Your task to perform on an android device: check storage Image 0: 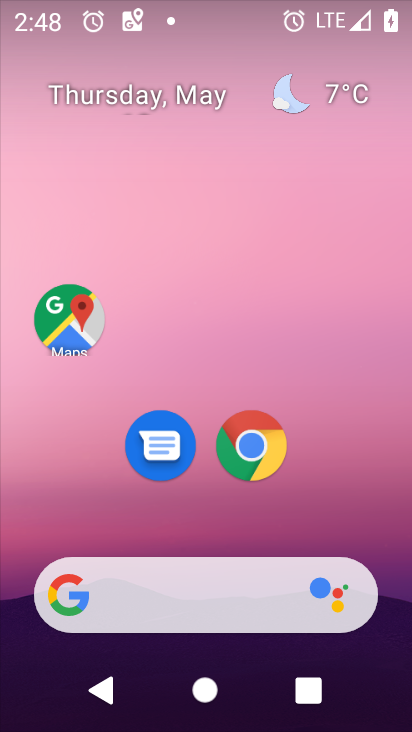
Step 0: drag from (361, 548) to (350, 32)
Your task to perform on an android device: check storage Image 1: 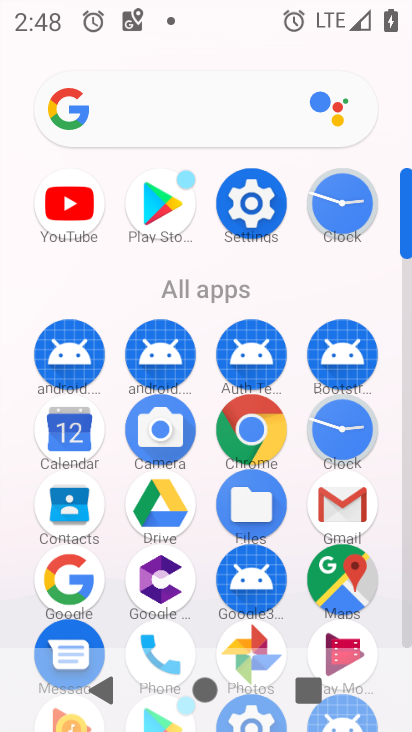
Step 1: click (243, 209)
Your task to perform on an android device: check storage Image 2: 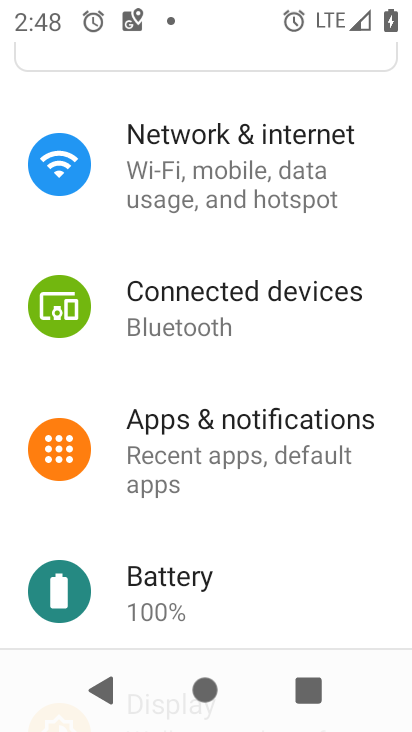
Step 2: drag from (304, 596) to (272, 170)
Your task to perform on an android device: check storage Image 3: 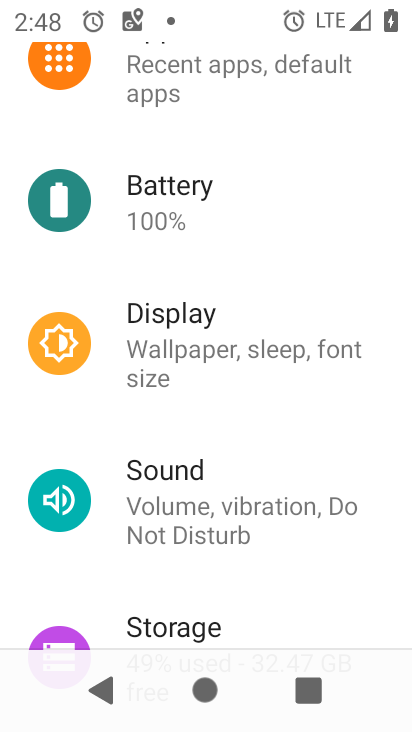
Step 3: drag from (220, 515) to (225, 248)
Your task to perform on an android device: check storage Image 4: 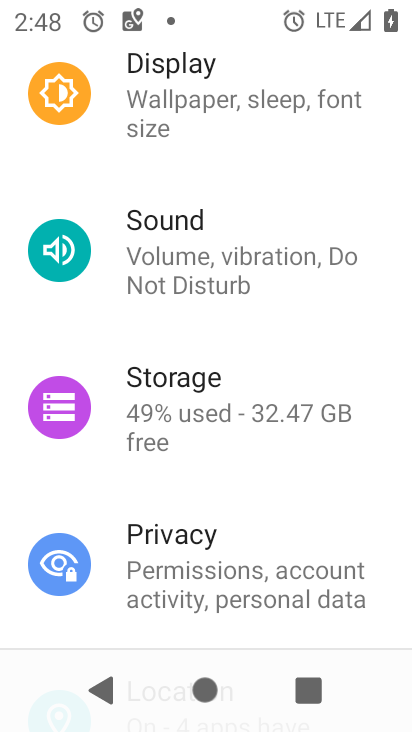
Step 4: click (176, 410)
Your task to perform on an android device: check storage Image 5: 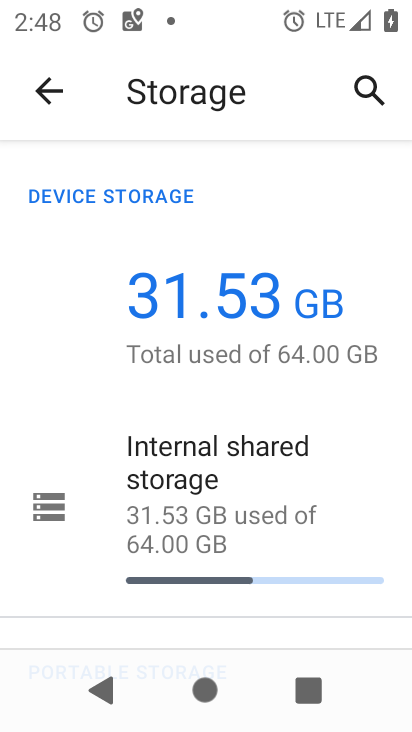
Step 5: click (194, 537)
Your task to perform on an android device: check storage Image 6: 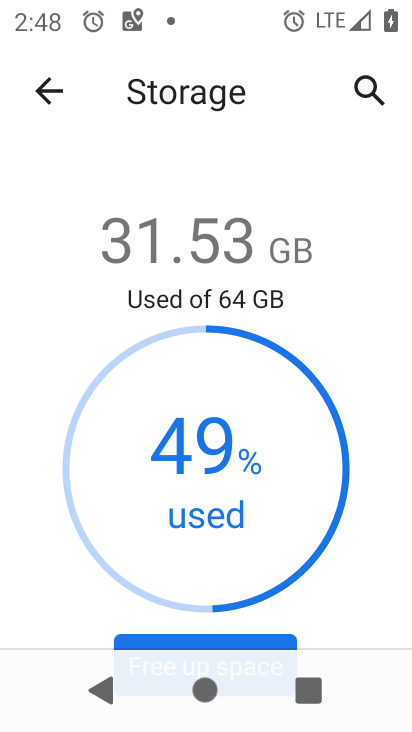
Step 6: task complete